Your task to perform on an android device: see sites visited before in the chrome app Image 0: 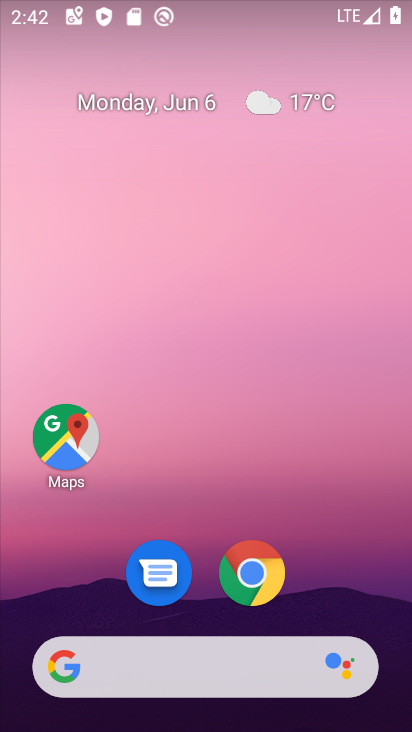
Step 0: drag from (379, 631) to (369, 190)
Your task to perform on an android device: see sites visited before in the chrome app Image 1: 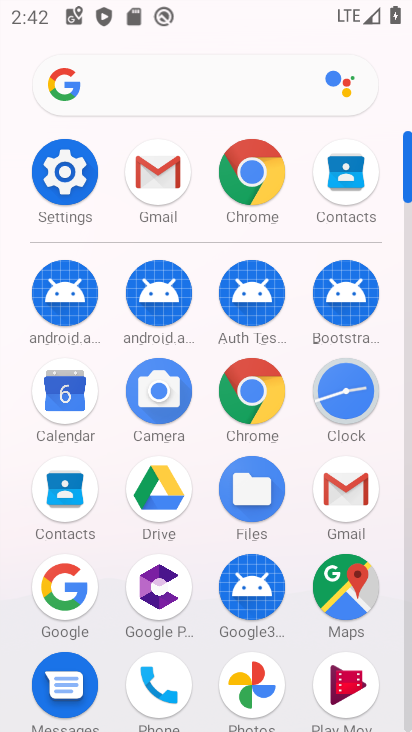
Step 1: click (265, 393)
Your task to perform on an android device: see sites visited before in the chrome app Image 2: 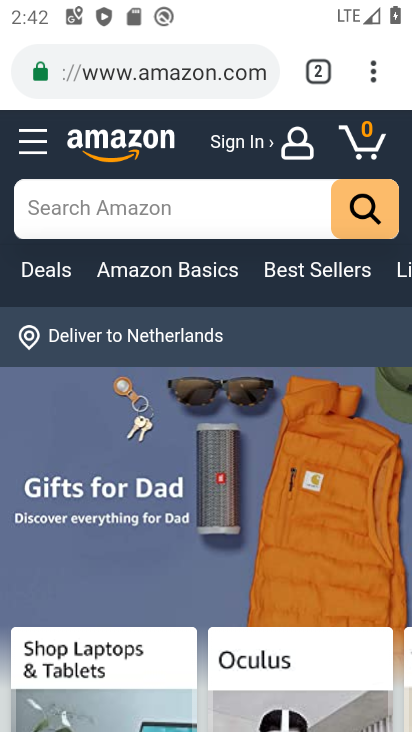
Step 2: click (372, 81)
Your task to perform on an android device: see sites visited before in the chrome app Image 3: 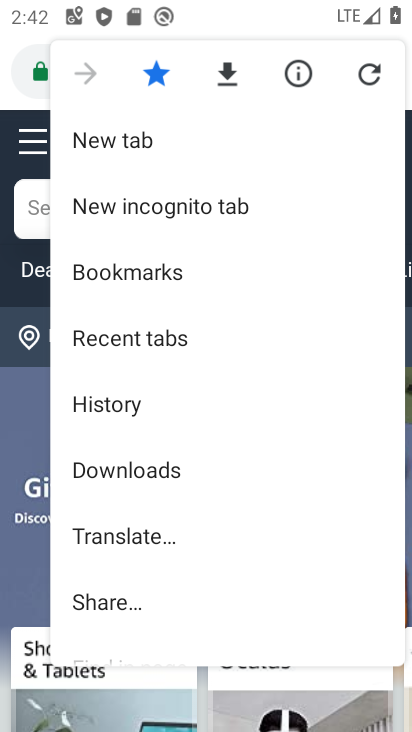
Step 3: drag from (293, 437) to (318, 301)
Your task to perform on an android device: see sites visited before in the chrome app Image 4: 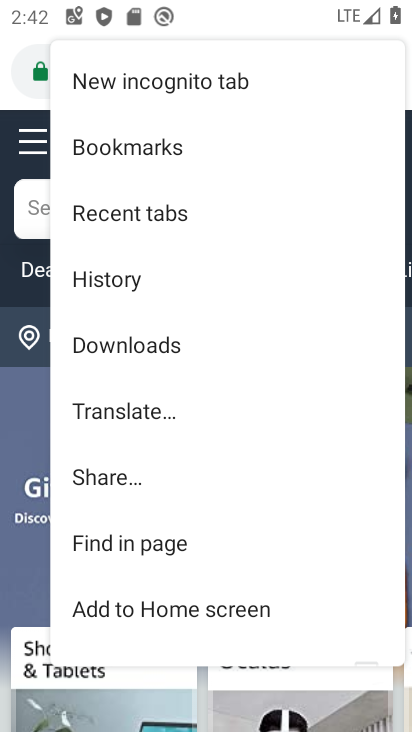
Step 4: drag from (326, 489) to (329, 337)
Your task to perform on an android device: see sites visited before in the chrome app Image 5: 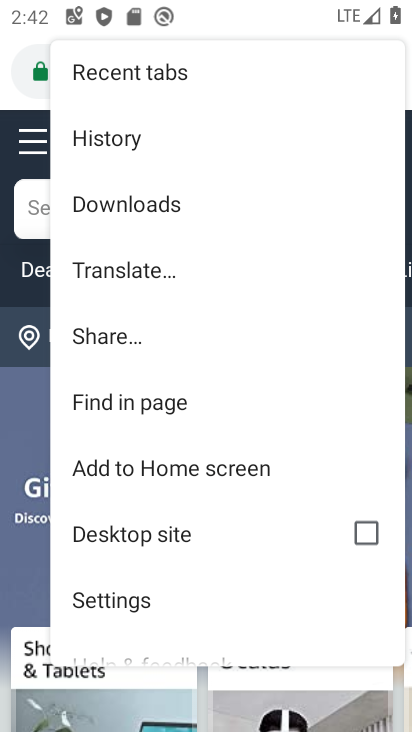
Step 5: drag from (323, 512) to (336, 359)
Your task to perform on an android device: see sites visited before in the chrome app Image 6: 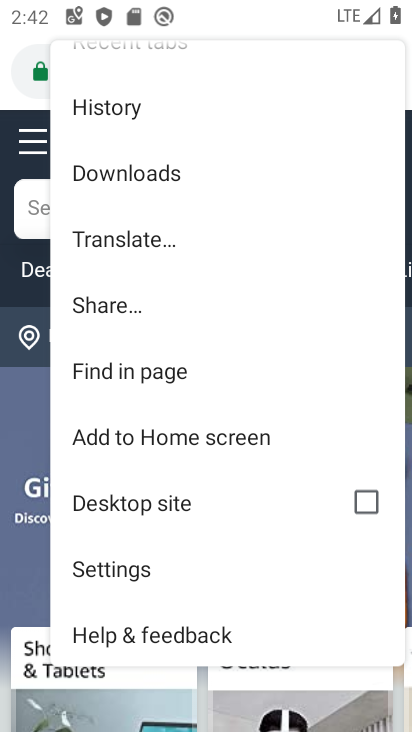
Step 6: drag from (261, 133) to (263, 310)
Your task to perform on an android device: see sites visited before in the chrome app Image 7: 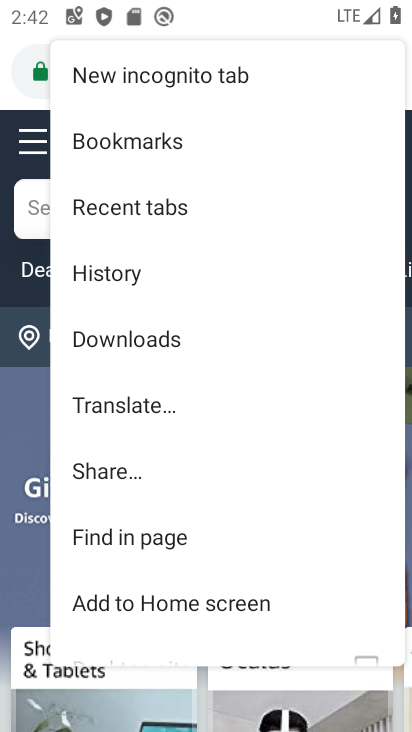
Step 7: click (153, 290)
Your task to perform on an android device: see sites visited before in the chrome app Image 8: 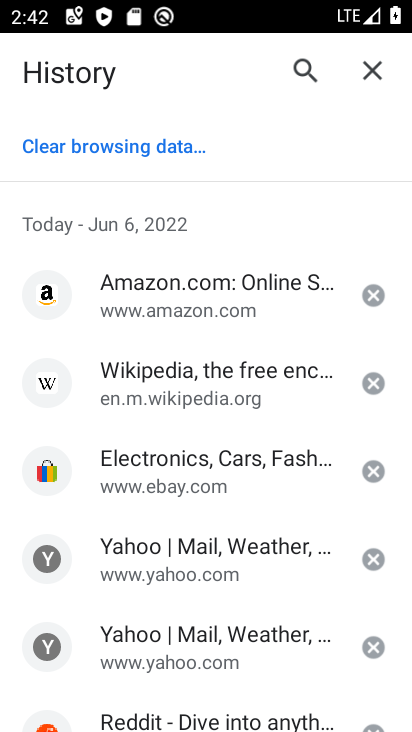
Step 8: task complete